Your task to perform on an android device: open a bookmark in the chrome app Image 0: 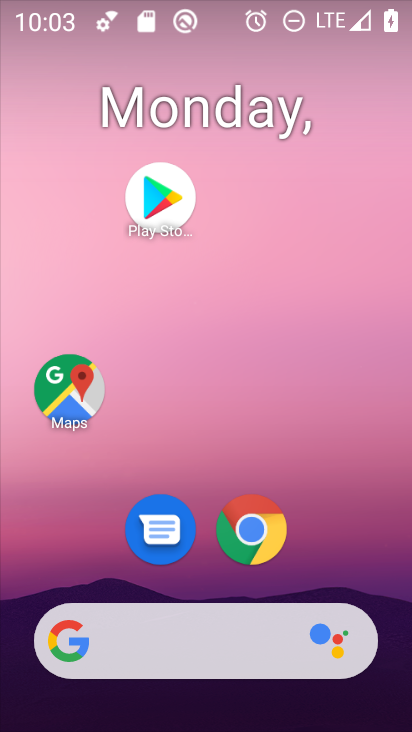
Step 0: click (242, 551)
Your task to perform on an android device: open a bookmark in the chrome app Image 1: 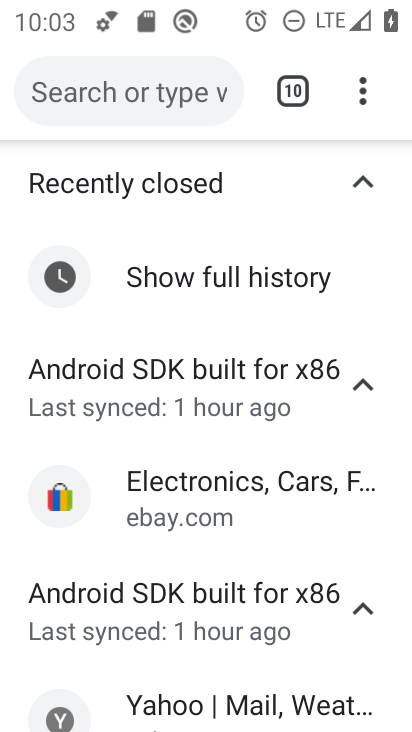
Step 1: click (361, 87)
Your task to perform on an android device: open a bookmark in the chrome app Image 2: 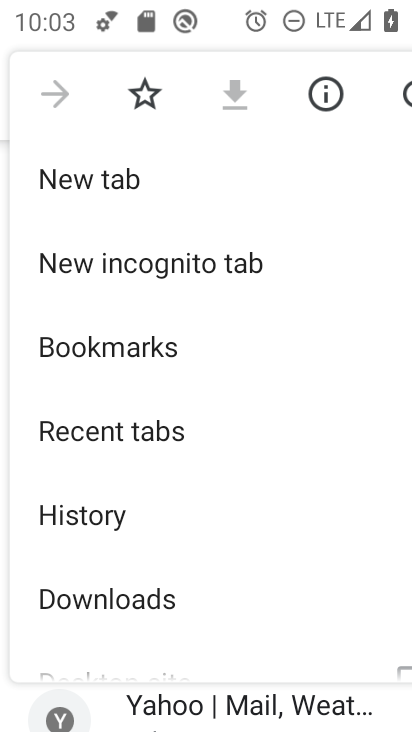
Step 2: click (131, 346)
Your task to perform on an android device: open a bookmark in the chrome app Image 3: 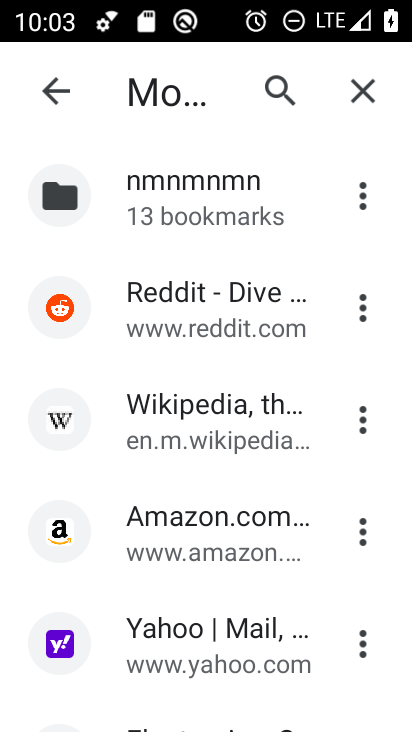
Step 3: task complete